Your task to perform on an android device: toggle notification dots Image 0: 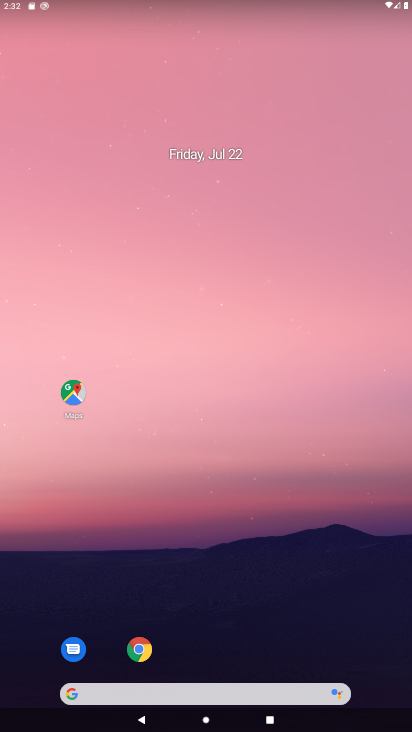
Step 0: drag from (230, 729) to (215, 281)
Your task to perform on an android device: toggle notification dots Image 1: 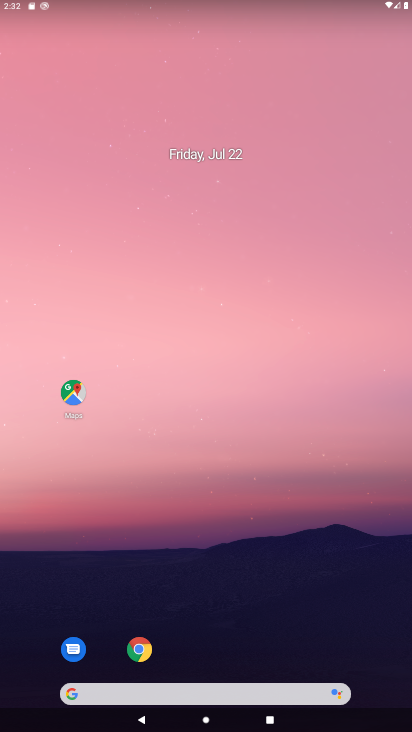
Step 1: drag from (224, 730) to (232, 89)
Your task to perform on an android device: toggle notification dots Image 2: 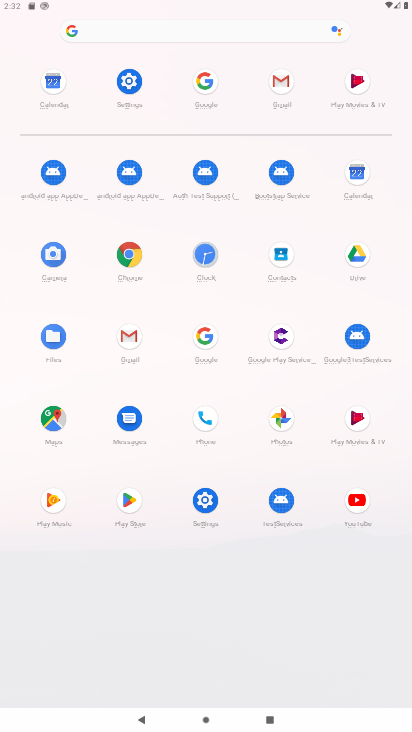
Step 2: click (126, 85)
Your task to perform on an android device: toggle notification dots Image 3: 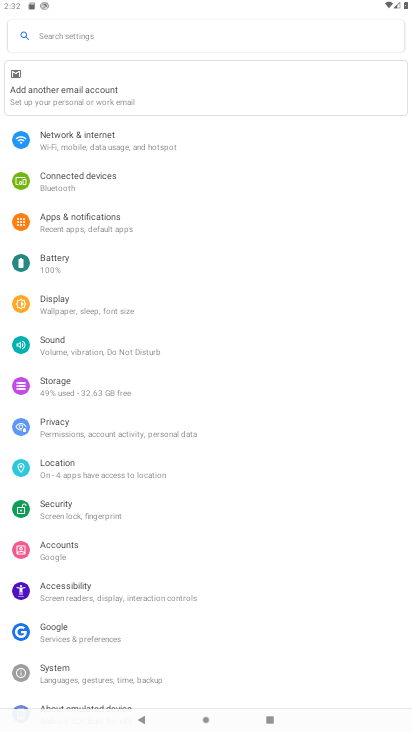
Step 3: click (88, 224)
Your task to perform on an android device: toggle notification dots Image 4: 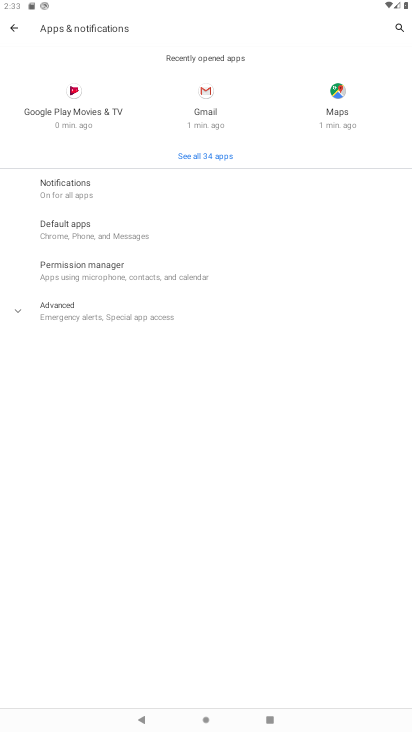
Step 4: click (63, 180)
Your task to perform on an android device: toggle notification dots Image 5: 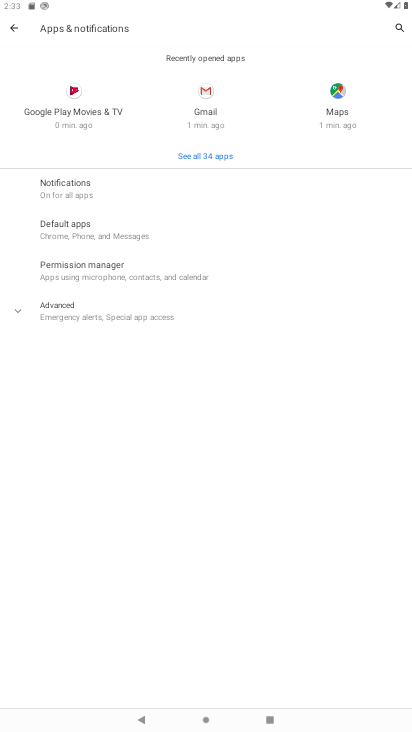
Step 5: click (63, 180)
Your task to perform on an android device: toggle notification dots Image 6: 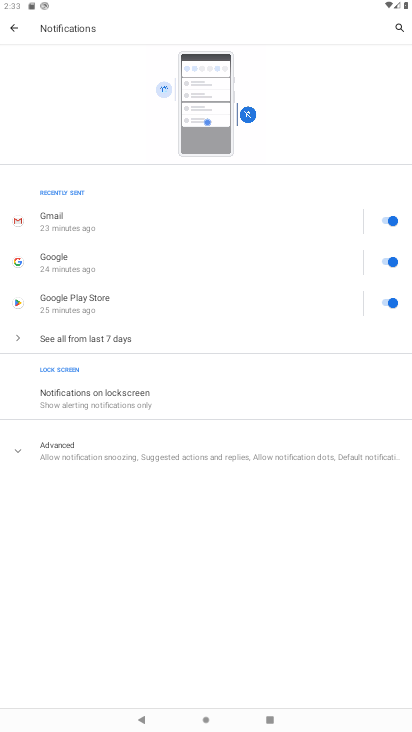
Step 6: click (90, 452)
Your task to perform on an android device: toggle notification dots Image 7: 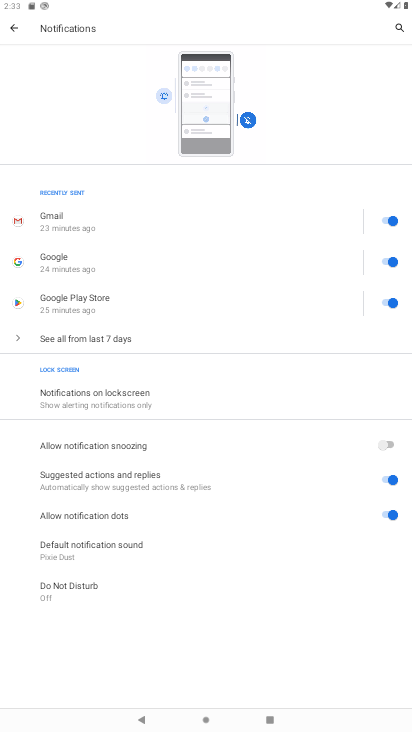
Step 7: click (389, 512)
Your task to perform on an android device: toggle notification dots Image 8: 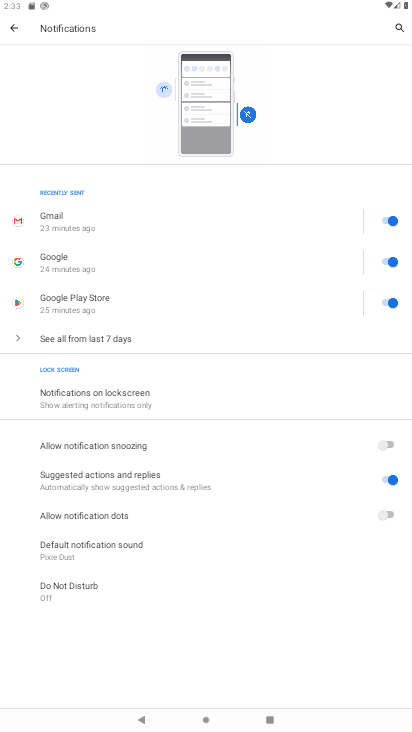
Step 8: task complete